Your task to perform on an android device: install app "YouTube Kids" Image 0: 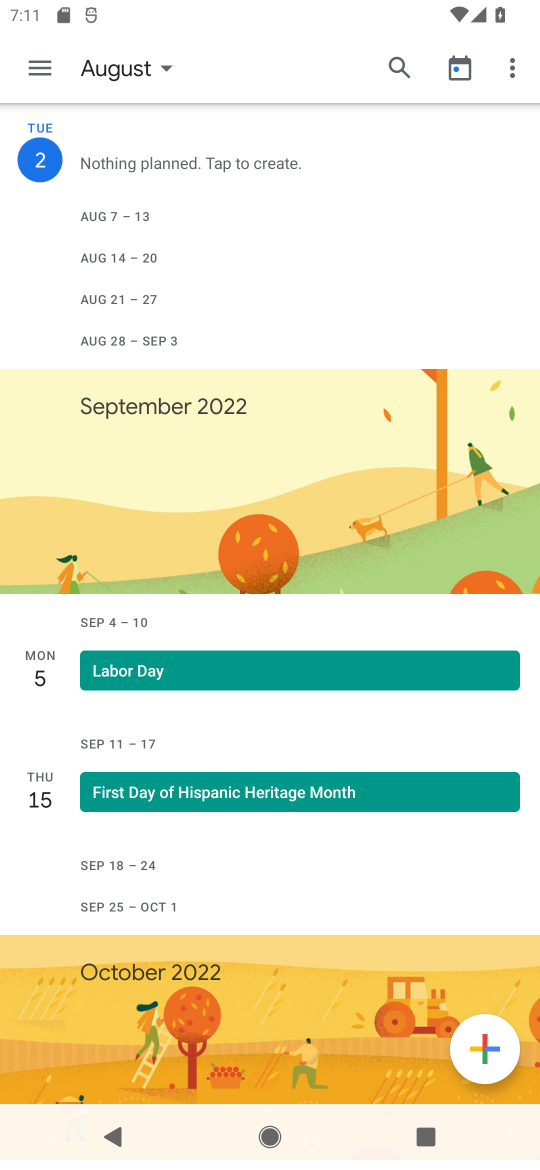
Step 0: press home button
Your task to perform on an android device: install app "YouTube Kids" Image 1: 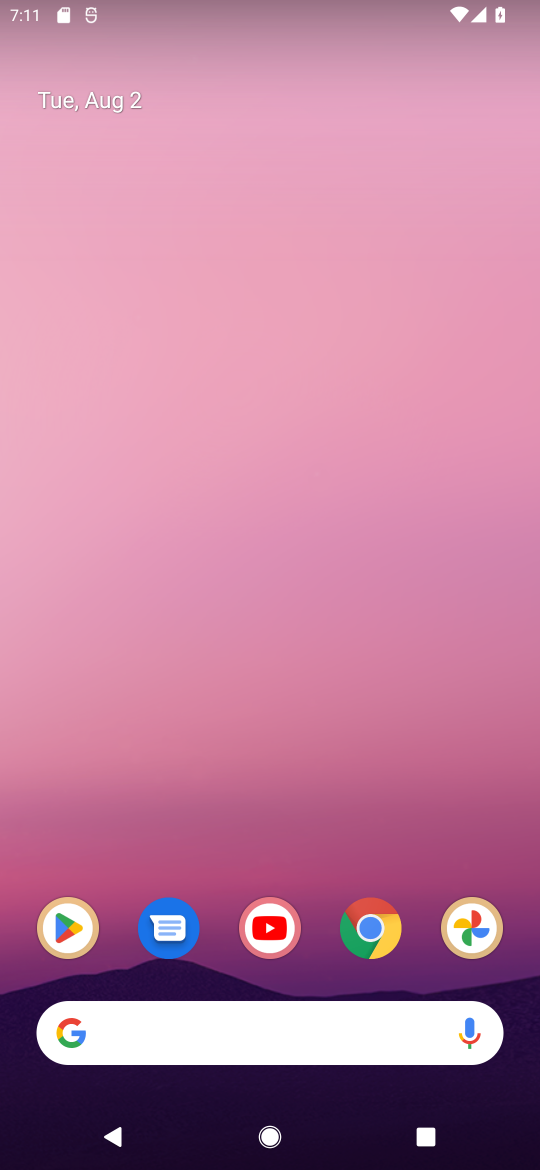
Step 1: click (59, 921)
Your task to perform on an android device: install app "YouTube Kids" Image 2: 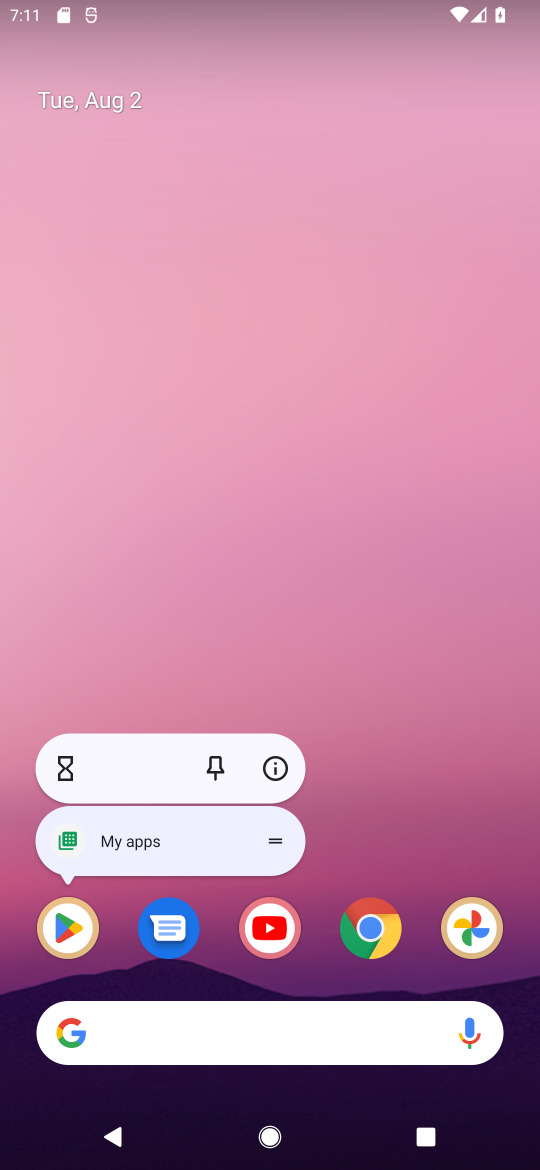
Step 2: click (59, 921)
Your task to perform on an android device: install app "YouTube Kids" Image 3: 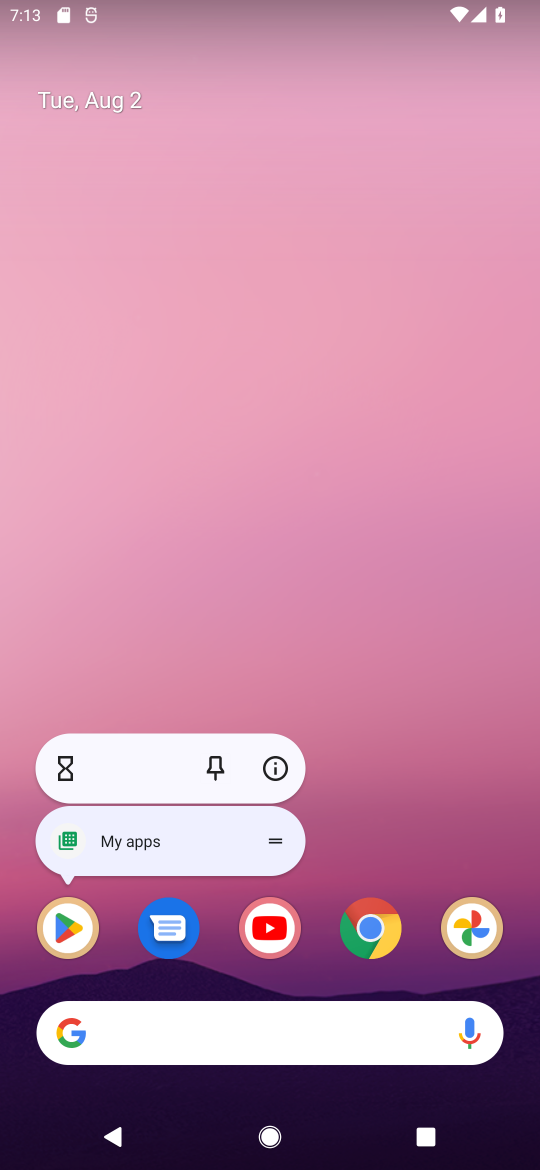
Step 3: click (40, 924)
Your task to perform on an android device: install app "YouTube Kids" Image 4: 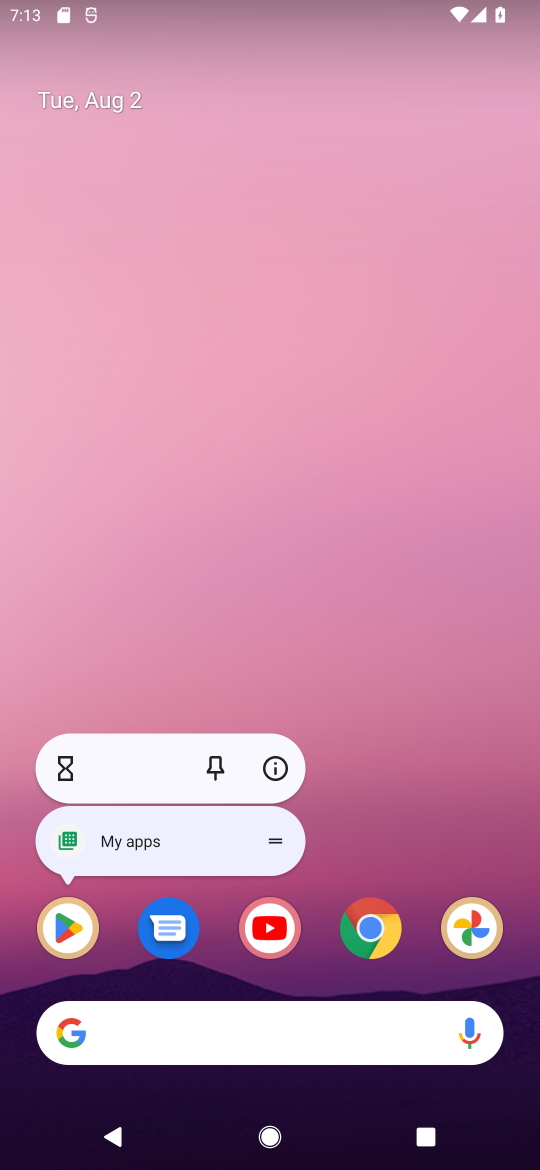
Step 4: click (54, 940)
Your task to perform on an android device: install app "YouTube Kids" Image 5: 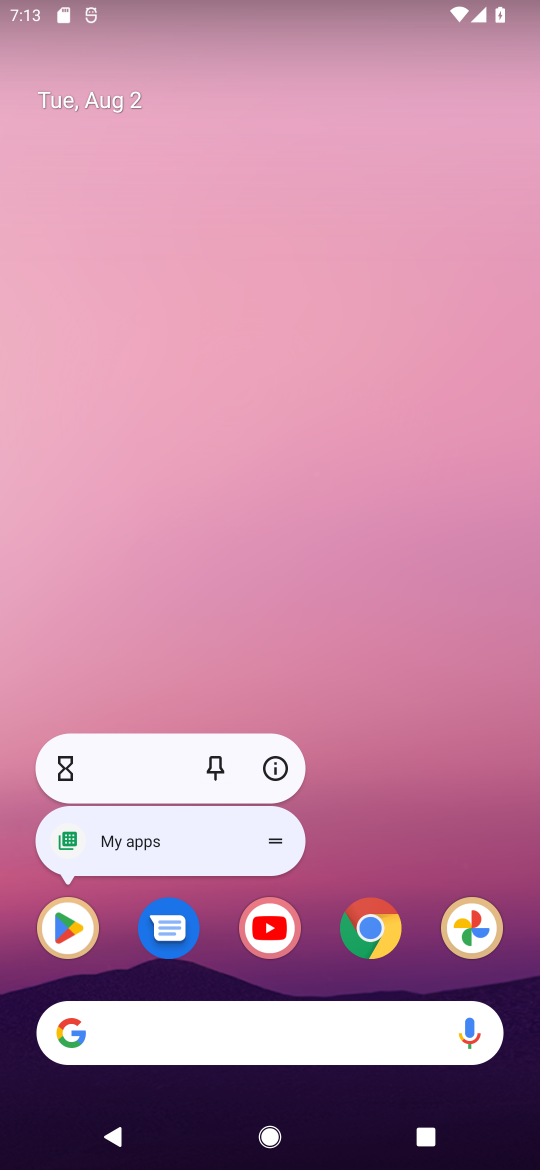
Step 5: click (54, 940)
Your task to perform on an android device: install app "YouTube Kids" Image 6: 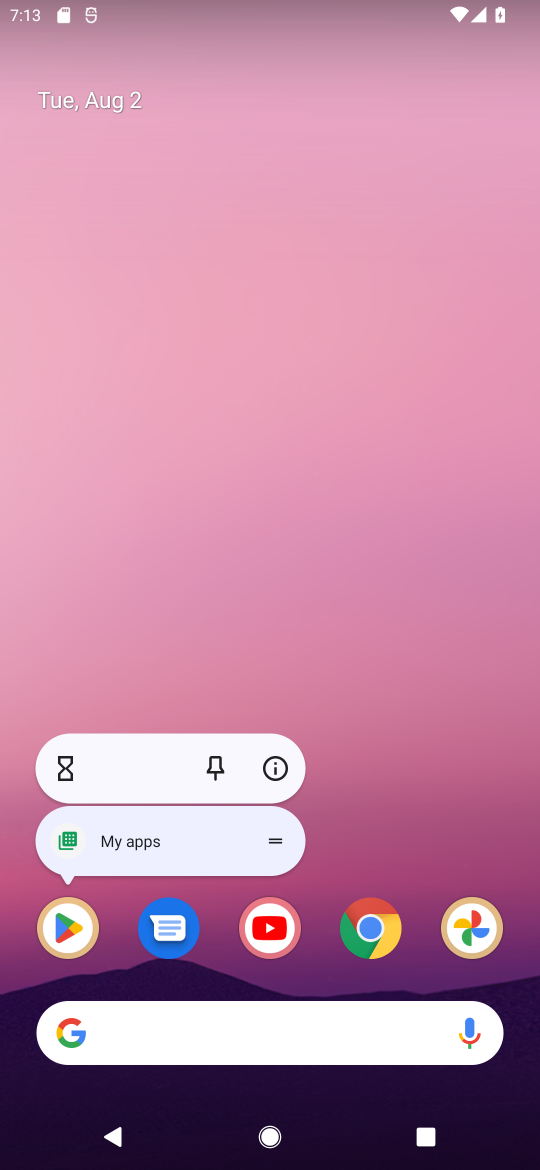
Step 6: click (62, 946)
Your task to perform on an android device: install app "YouTube Kids" Image 7: 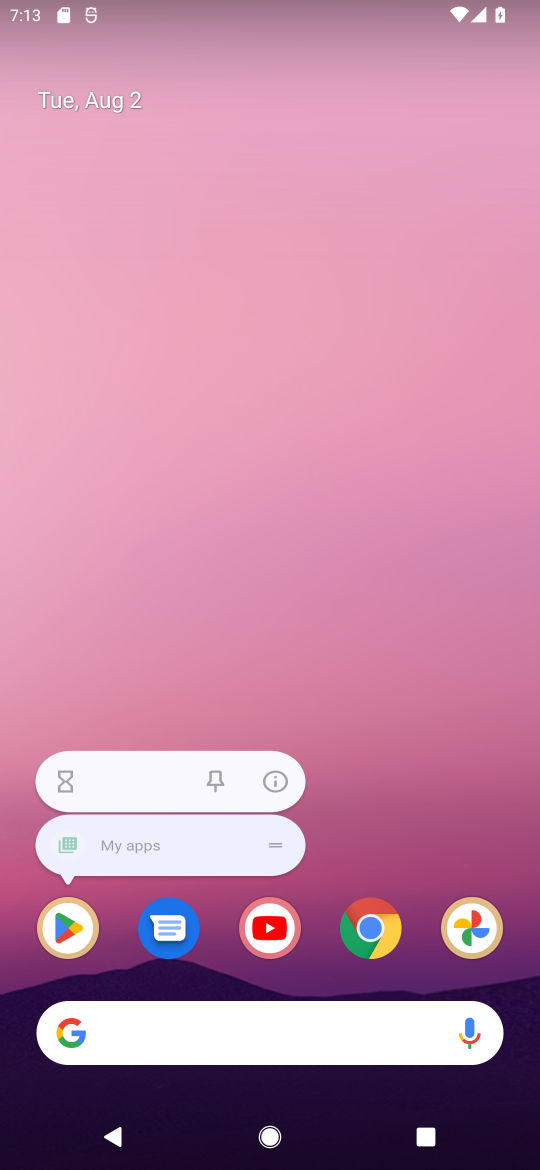
Step 7: click (5, 974)
Your task to perform on an android device: install app "YouTube Kids" Image 8: 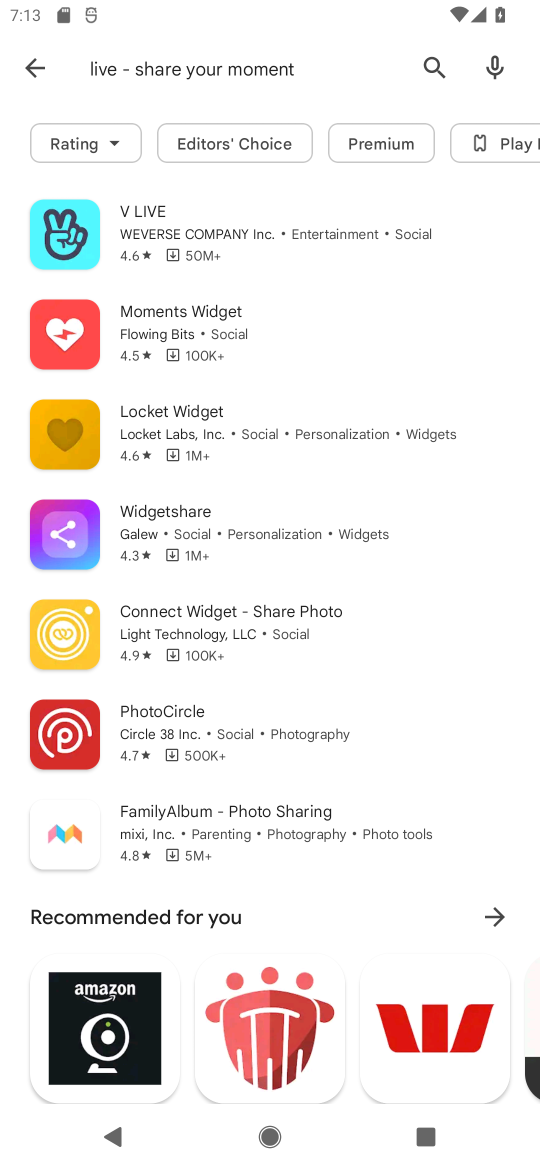
Step 8: click (82, 951)
Your task to perform on an android device: install app "YouTube Kids" Image 9: 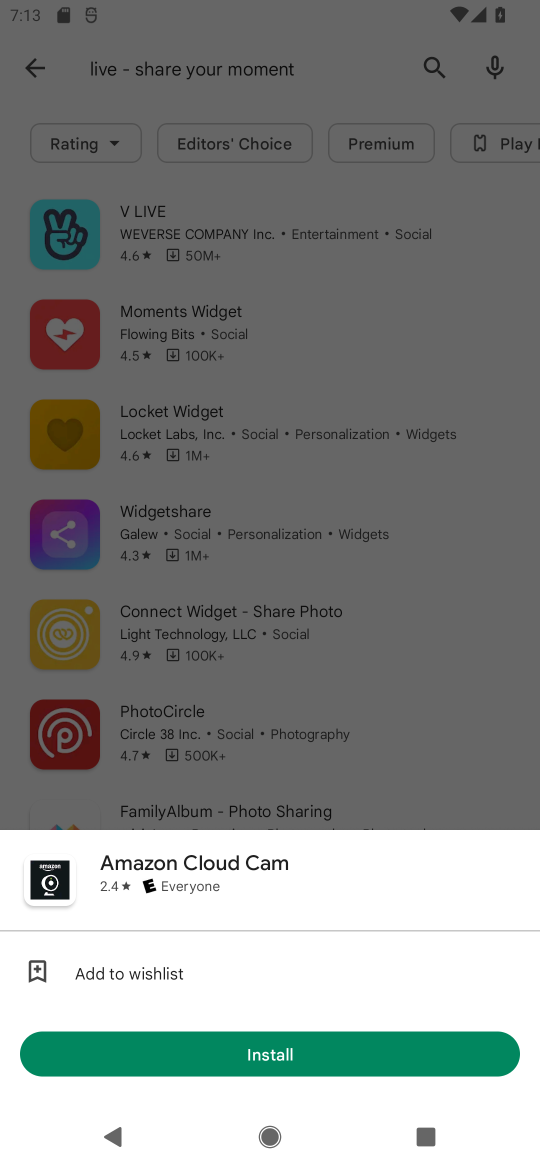
Step 9: click (435, 67)
Your task to perform on an android device: install app "YouTube Kids" Image 10: 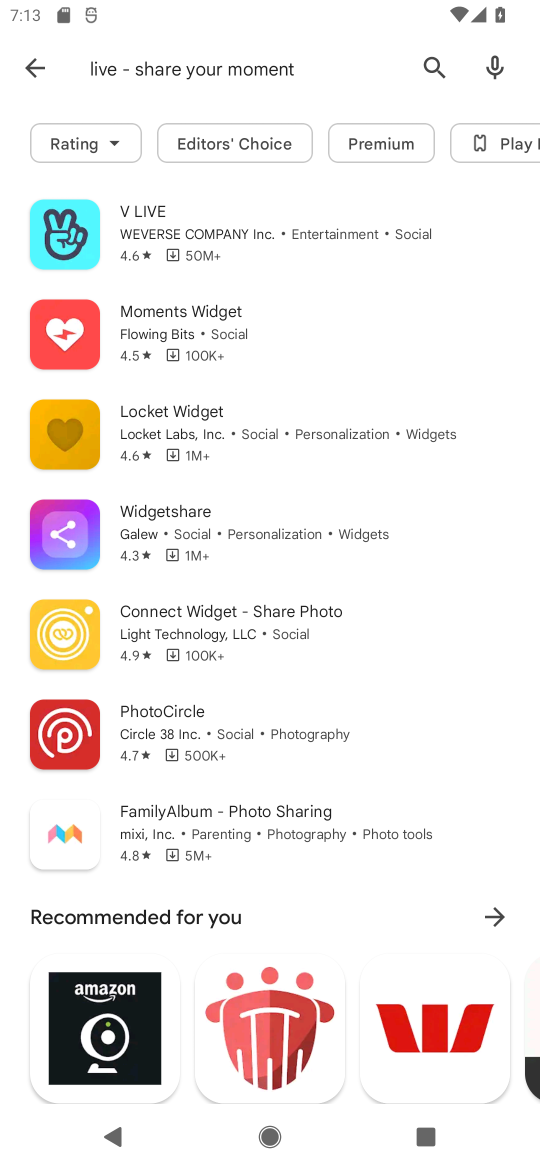
Step 10: click (429, 64)
Your task to perform on an android device: install app "YouTube Kids" Image 11: 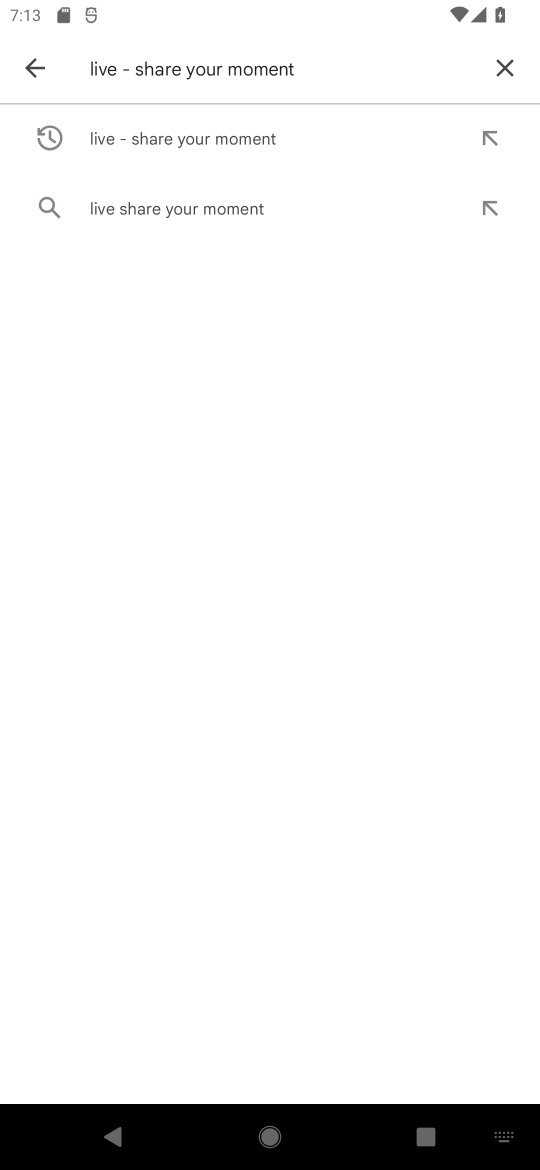
Step 11: click (518, 59)
Your task to perform on an android device: install app "YouTube Kids" Image 12: 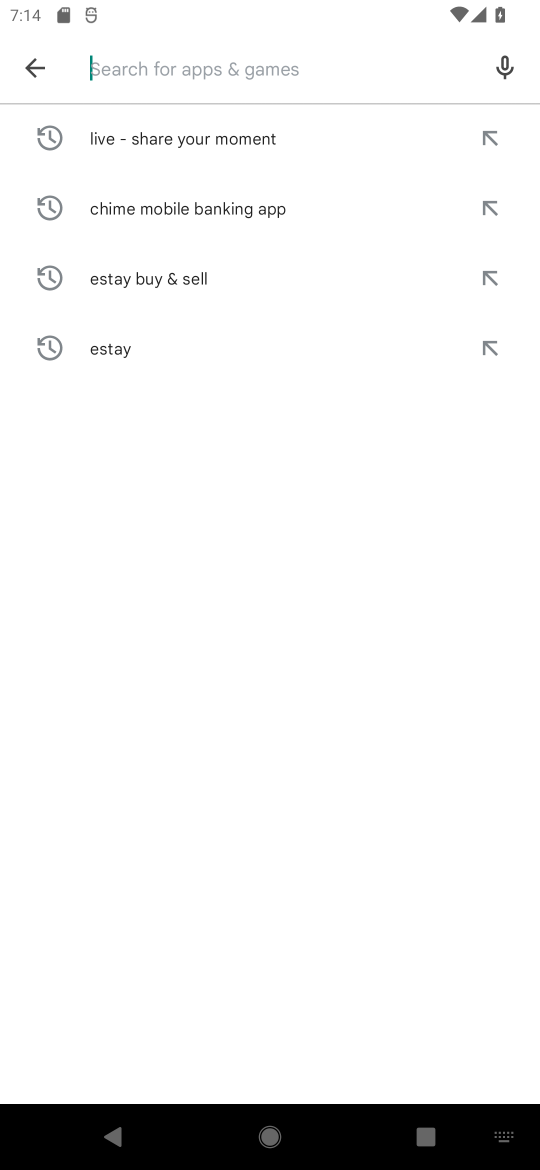
Step 12: type "youtube kids "
Your task to perform on an android device: install app "YouTube Kids" Image 13: 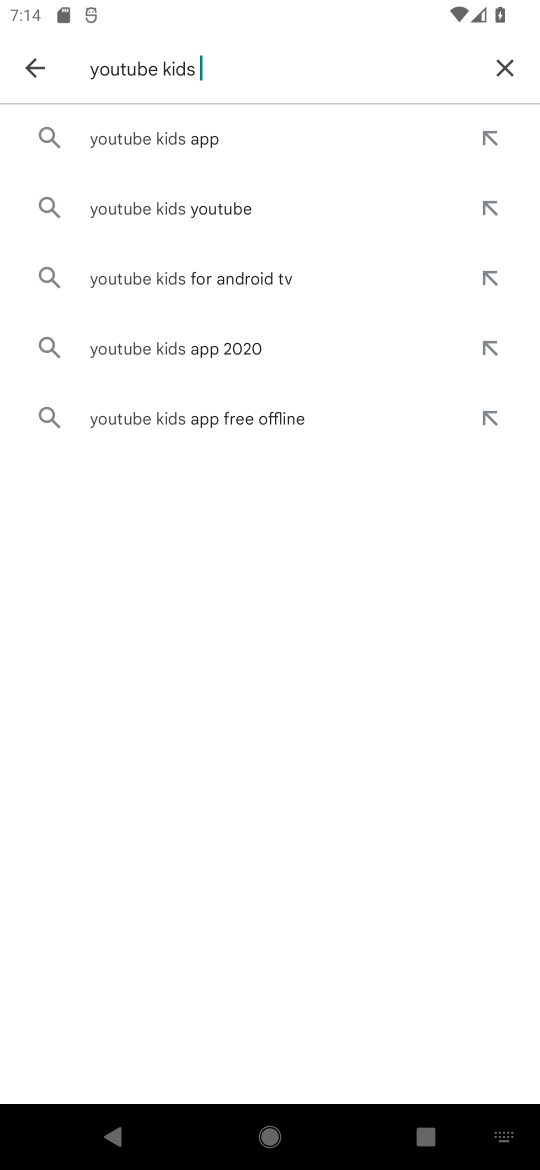
Step 13: click (251, 116)
Your task to perform on an android device: install app "YouTube Kids" Image 14: 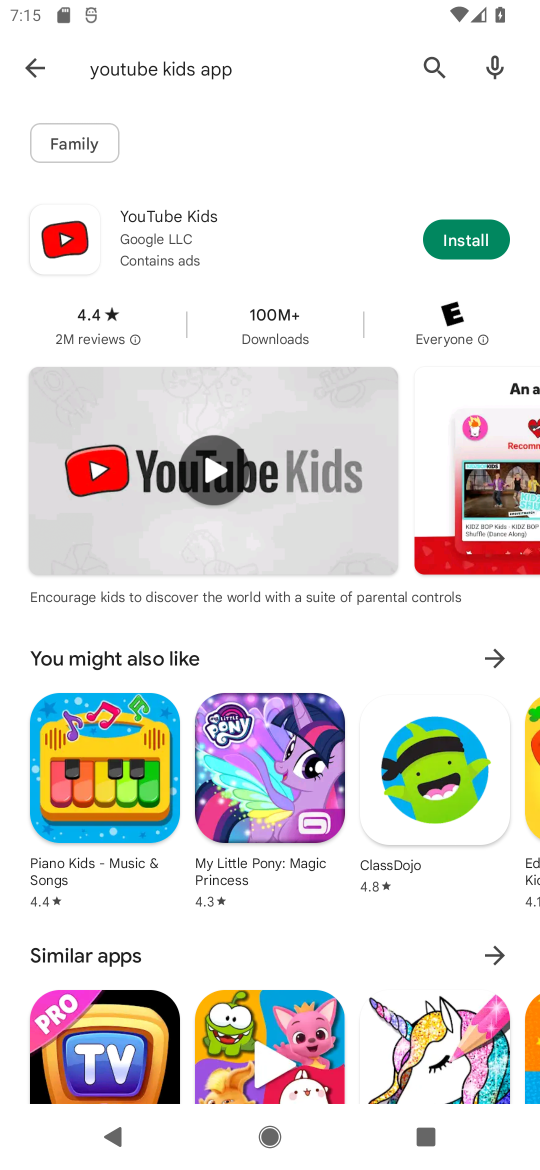
Step 14: click (471, 232)
Your task to perform on an android device: install app "YouTube Kids" Image 15: 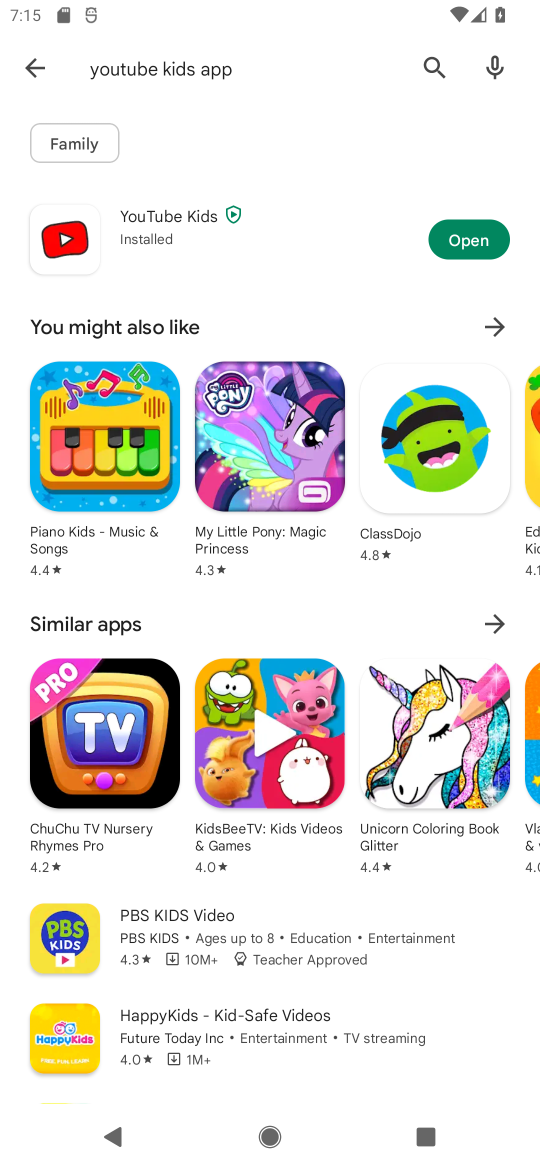
Step 15: task complete